Your task to perform on an android device: toggle data saver in the chrome app Image 0: 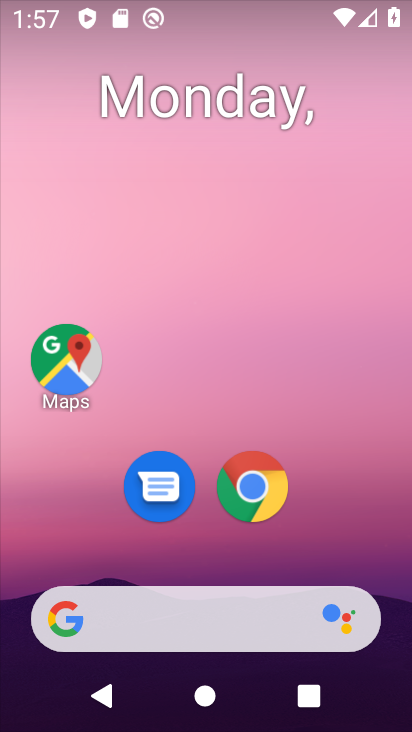
Step 0: click (249, 508)
Your task to perform on an android device: toggle data saver in the chrome app Image 1: 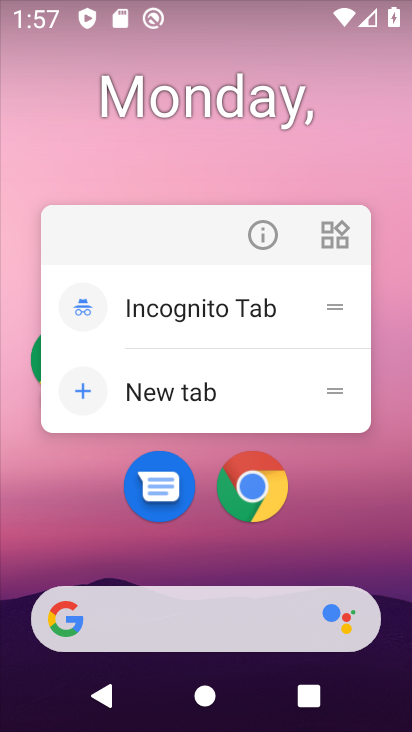
Step 1: click (249, 508)
Your task to perform on an android device: toggle data saver in the chrome app Image 2: 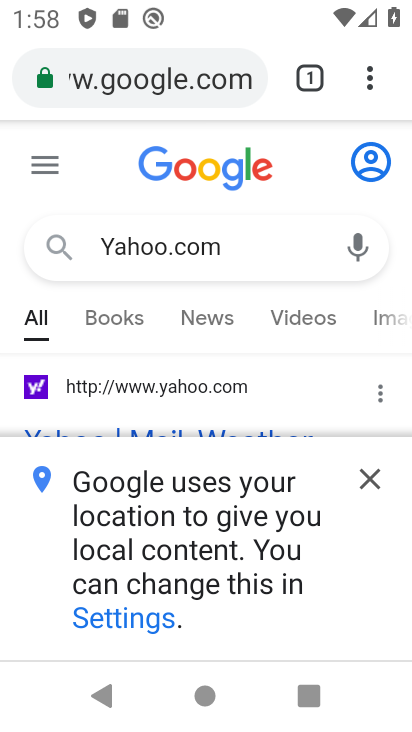
Step 2: click (363, 474)
Your task to perform on an android device: toggle data saver in the chrome app Image 3: 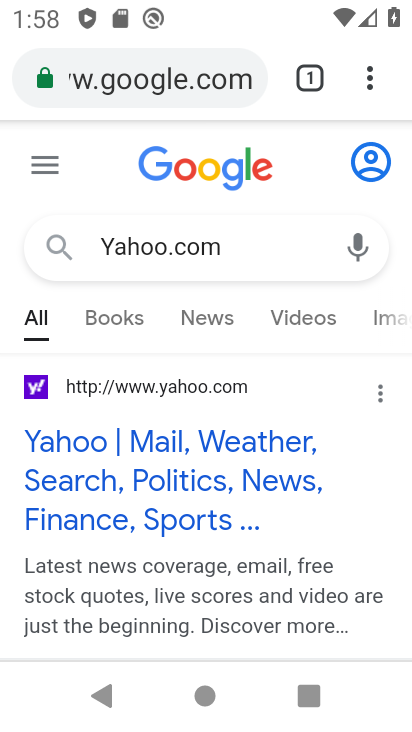
Step 3: click (239, 80)
Your task to perform on an android device: toggle data saver in the chrome app Image 4: 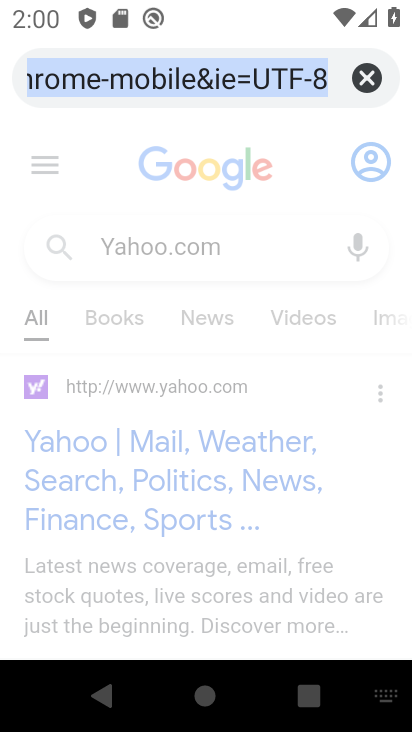
Step 4: press back button
Your task to perform on an android device: toggle data saver in the chrome app Image 5: 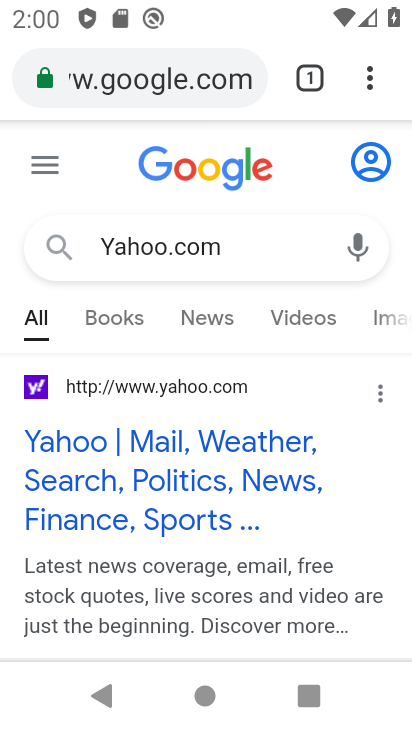
Step 5: click (374, 82)
Your task to perform on an android device: toggle data saver in the chrome app Image 6: 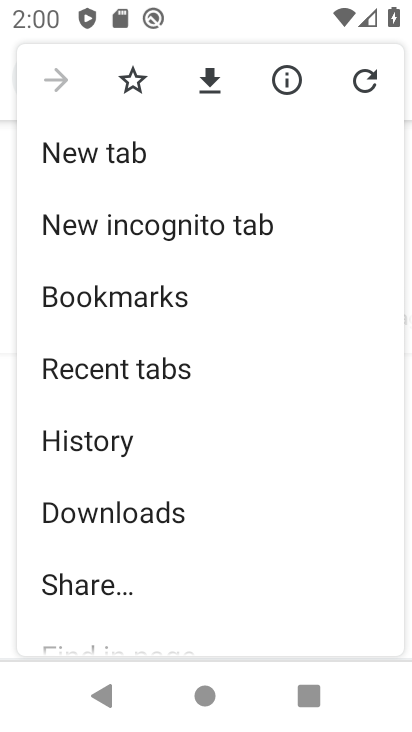
Step 6: drag from (199, 480) to (248, 106)
Your task to perform on an android device: toggle data saver in the chrome app Image 7: 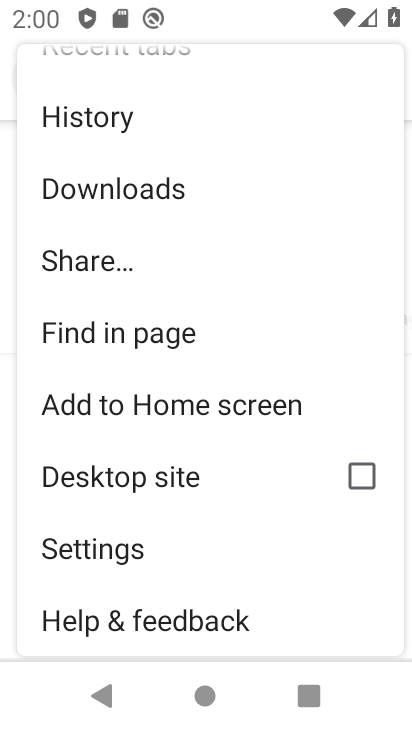
Step 7: click (129, 557)
Your task to perform on an android device: toggle data saver in the chrome app Image 8: 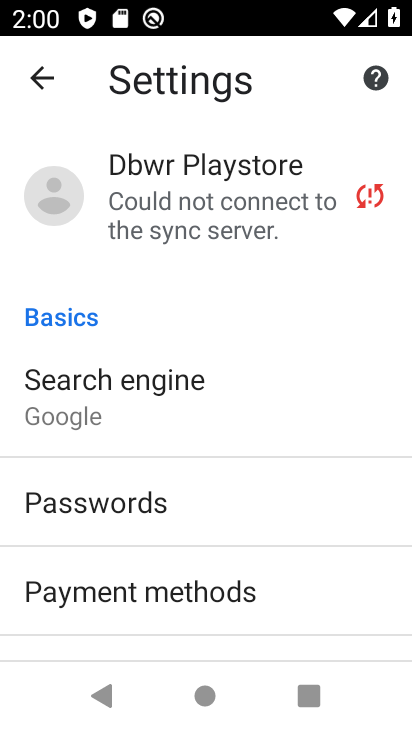
Step 8: drag from (195, 644) to (199, 307)
Your task to perform on an android device: toggle data saver in the chrome app Image 9: 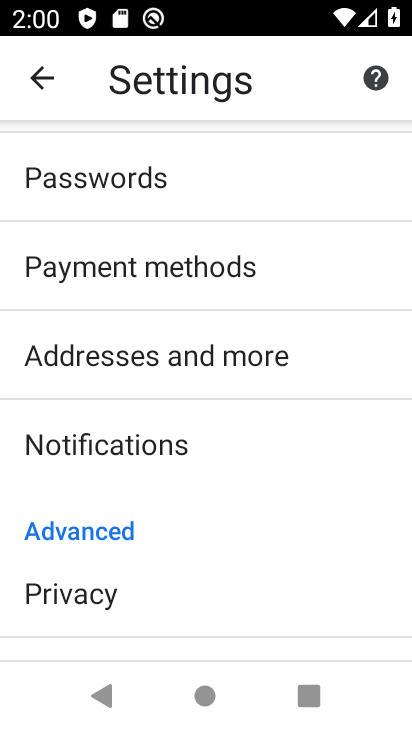
Step 9: drag from (149, 576) to (213, 374)
Your task to perform on an android device: toggle data saver in the chrome app Image 10: 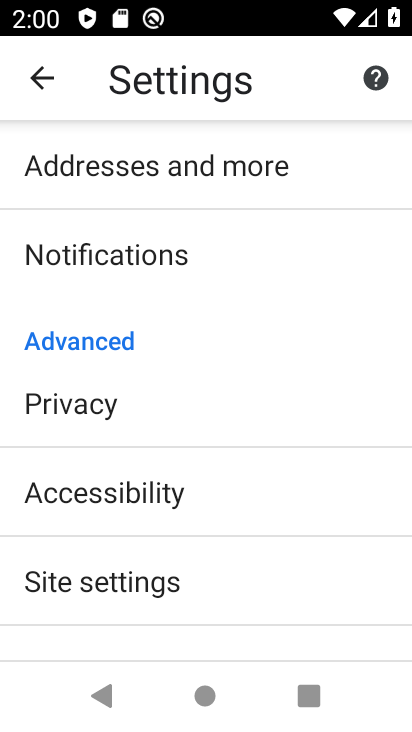
Step 10: drag from (214, 580) to (264, 291)
Your task to perform on an android device: toggle data saver in the chrome app Image 11: 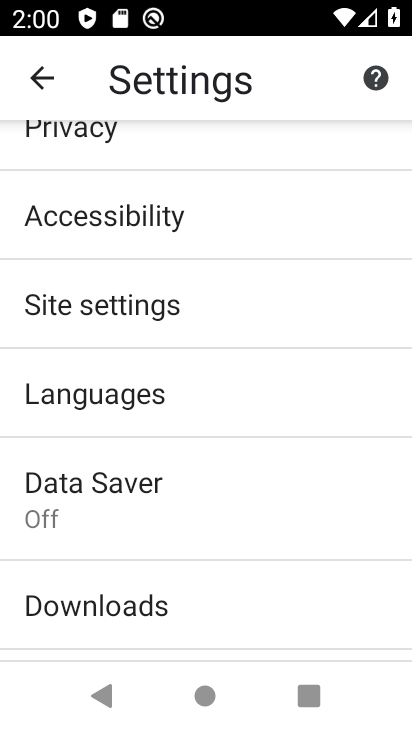
Step 11: drag from (193, 539) to (226, 338)
Your task to perform on an android device: toggle data saver in the chrome app Image 12: 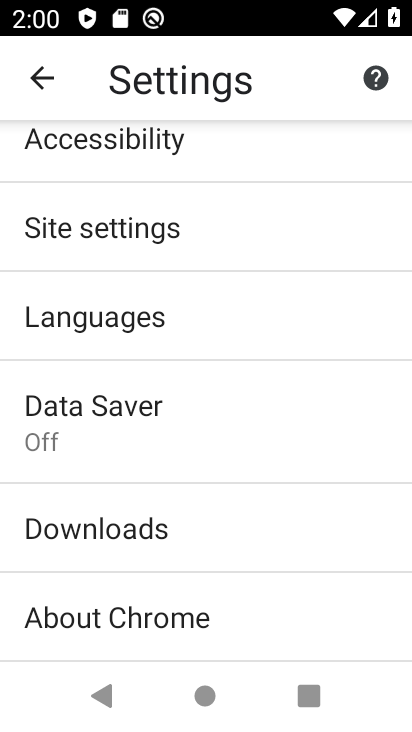
Step 12: drag from (216, 625) to (289, 363)
Your task to perform on an android device: toggle data saver in the chrome app Image 13: 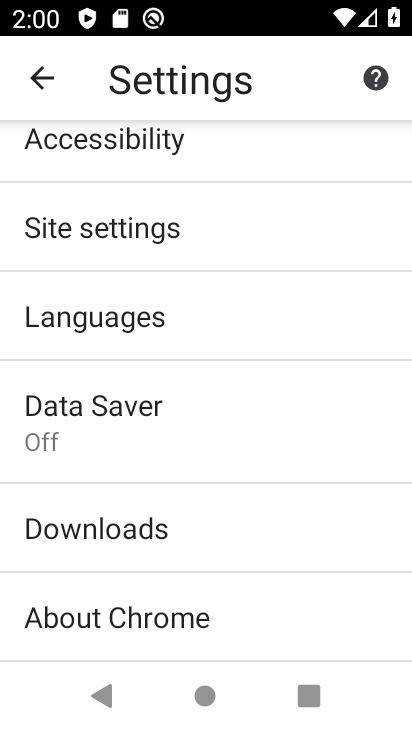
Step 13: drag from (329, 173) to (288, 446)
Your task to perform on an android device: toggle data saver in the chrome app Image 14: 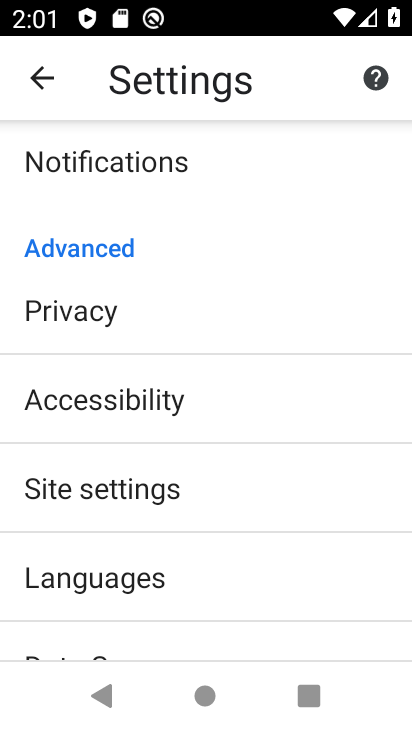
Step 14: drag from (229, 580) to (324, 335)
Your task to perform on an android device: toggle data saver in the chrome app Image 15: 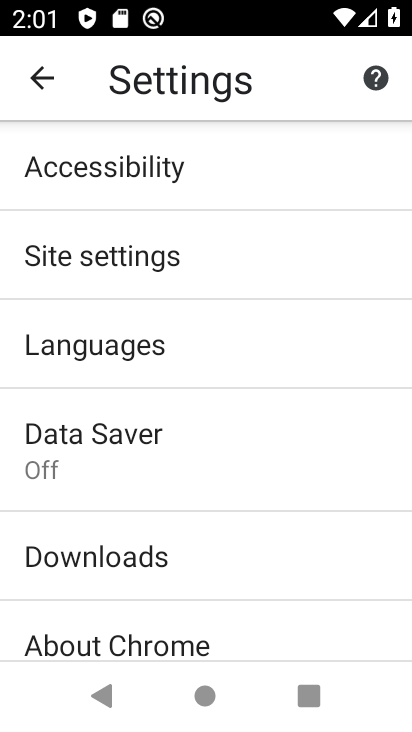
Step 15: click (143, 436)
Your task to perform on an android device: toggle data saver in the chrome app Image 16: 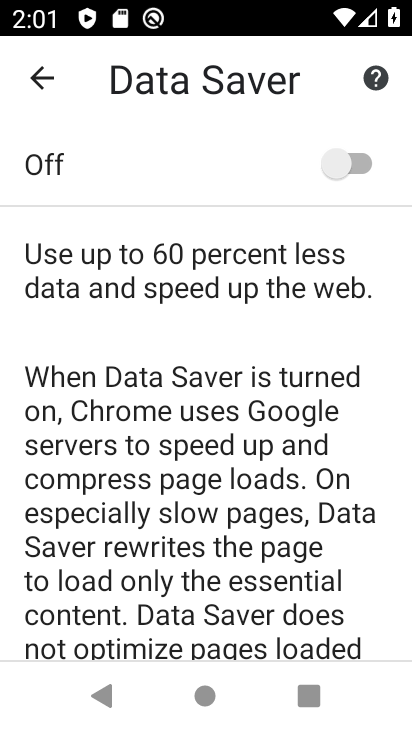
Step 16: click (374, 169)
Your task to perform on an android device: toggle data saver in the chrome app Image 17: 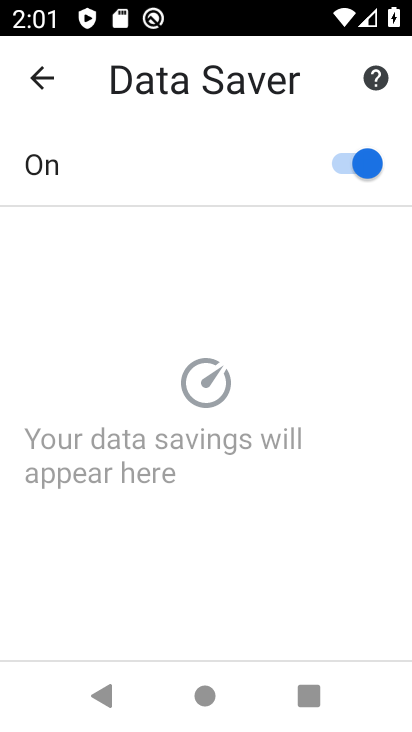
Step 17: task complete